Your task to perform on an android device: Search for Mexican restaurants on Maps Image 0: 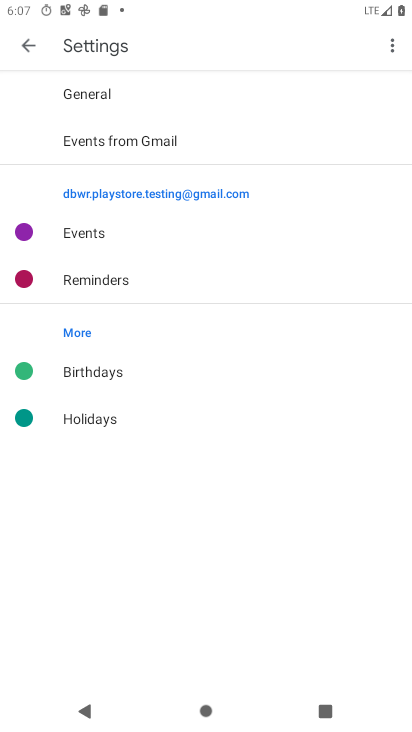
Step 0: press home button
Your task to perform on an android device: Search for Mexican restaurants on Maps Image 1: 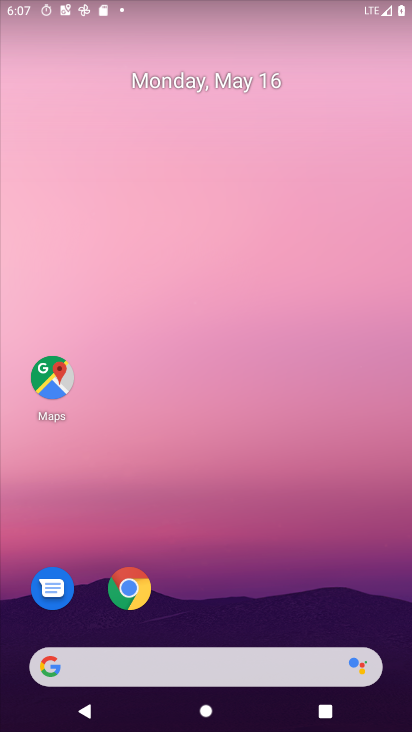
Step 1: click (46, 372)
Your task to perform on an android device: Search for Mexican restaurants on Maps Image 2: 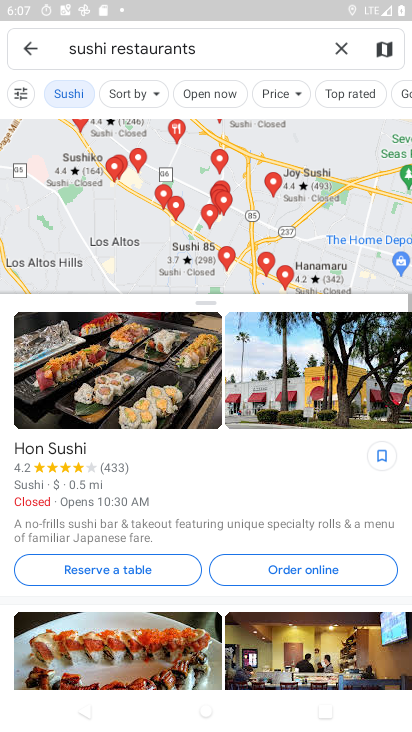
Step 2: click (340, 47)
Your task to perform on an android device: Search for Mexican restaurants on Maps Image 3: 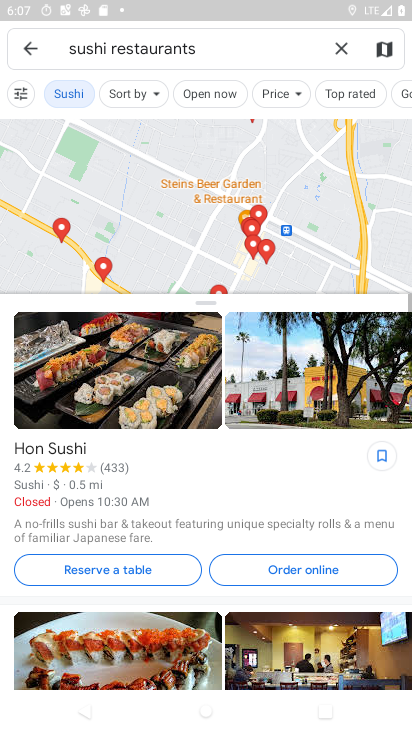
Step 3: click (174, 41)
Your task to perform on an android device: Search for Mexican restaurants on Maps Image 4: 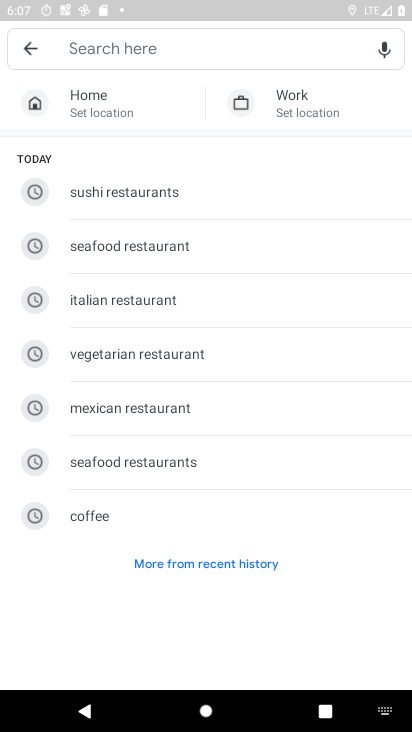
Step 4: click (128, 397)
Your task to perform on an android device: Search for Mexican restaurants on Maps Image 5: 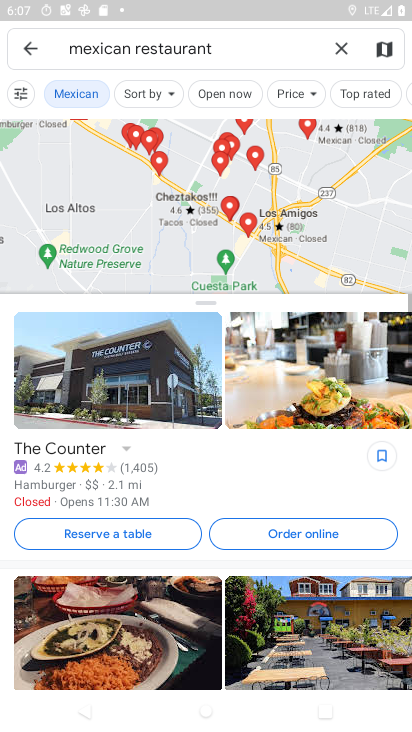
Step 5: task complete